Your task to perform on an android device: toggle location history Image 0: 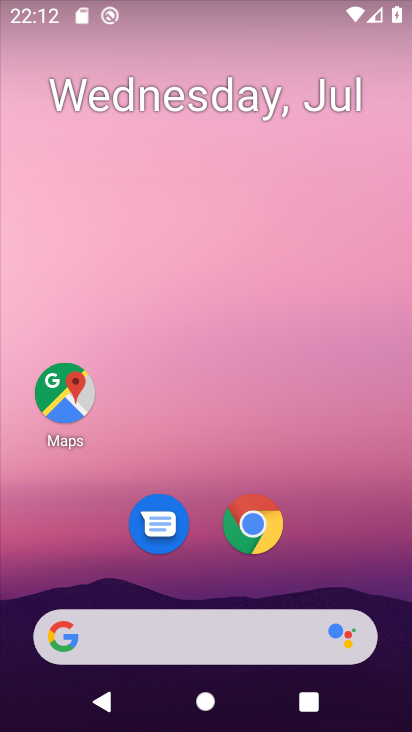
Step 0: drag from (326, 528) to (328, 1)
Your task to perform on an android device: toggle location history Image 1: 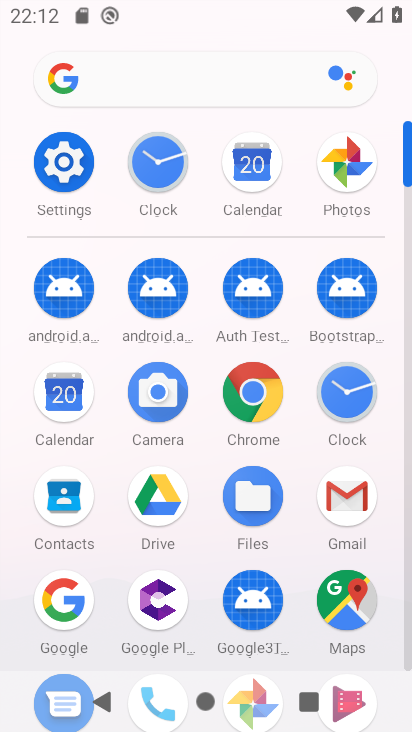
Step 1: drag from (202, 541) to (230, 346)
Your task to perform on an android device: toggle location history Image 2: 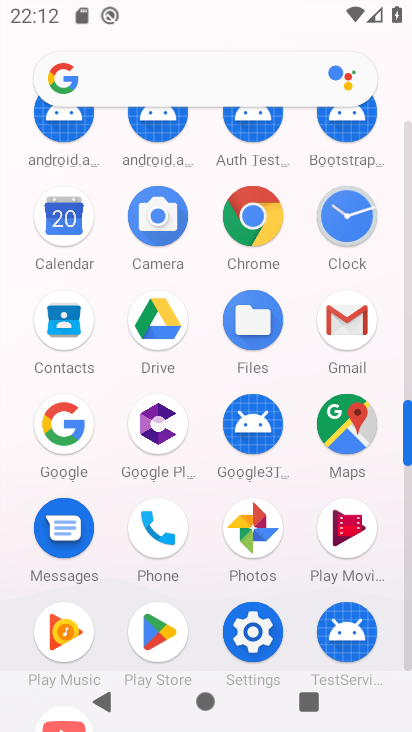
Step 2: drag from (204, 164) to (228, 457)
Your task to perform on an android device: toggle location history Image 3: 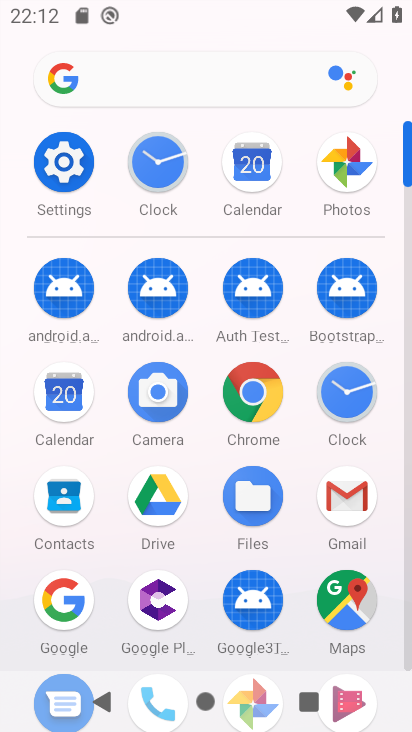
Step 3: click (69, 155)
Your task to perform on an android device: toggle location history Image 4: 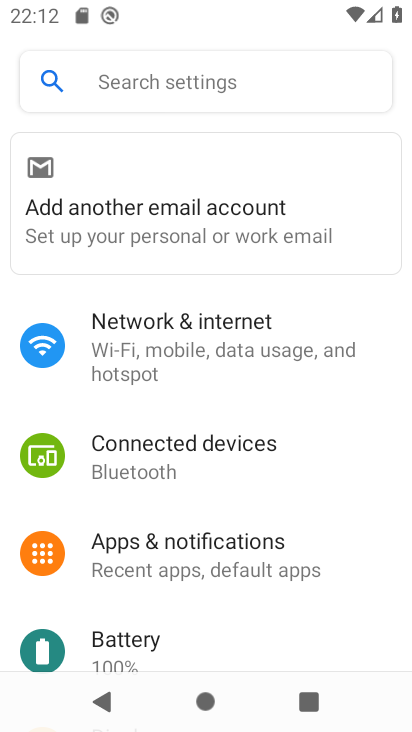
Step 4: drag from (217, 622) to (289, 25)
Your task to perform on an android device: toggle location history Image 5: 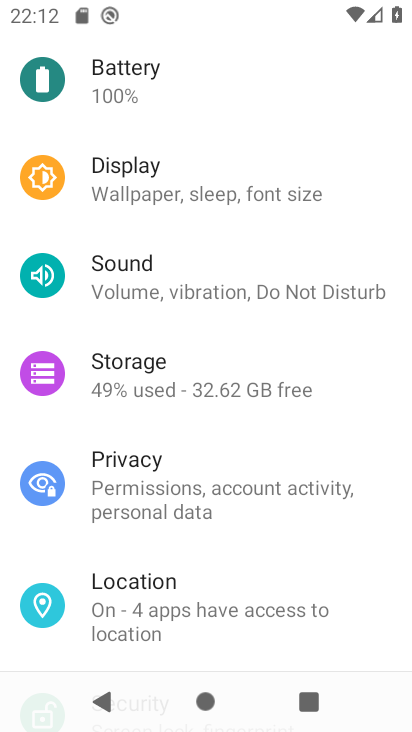
Step 5: click (222, 610)
Your task to perform on an android device: toggle location history Image 6: 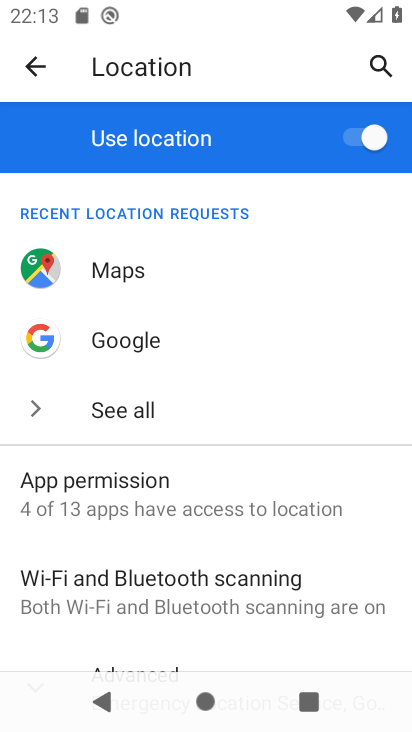
Step 6: drag from (258, 487) to (281, 194)
Your task to perform on an android device: toggle location history Image 7: 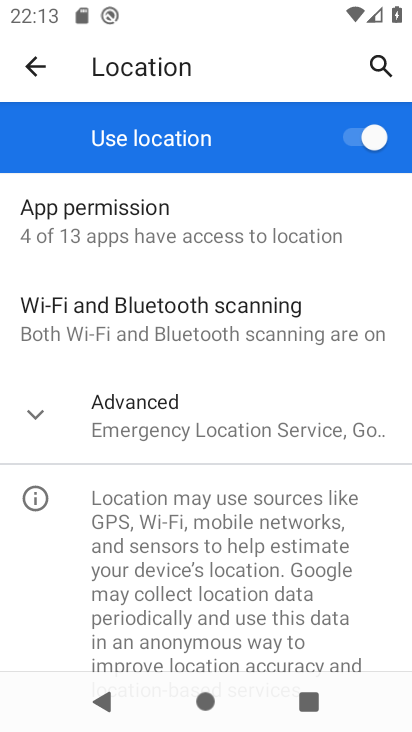
Step 7: click (39, 409)
Your task to perform on an android device: toggle location history Image 8: 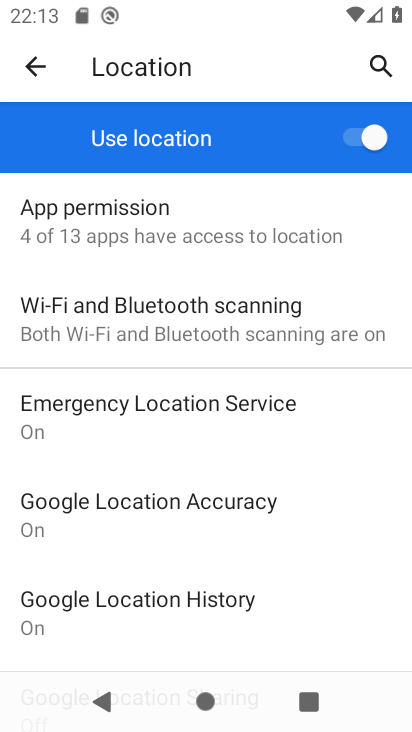
Step 8: click (183, 603)
Your task to perform on an android device: toggle location history Image 9: 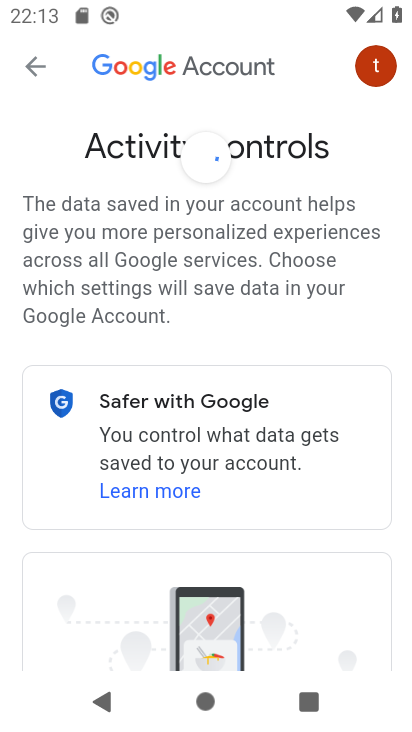
Step 9: drag from (262, 502) to (279, 132)
Your task to perform on an android device: toggle location history Image 10: 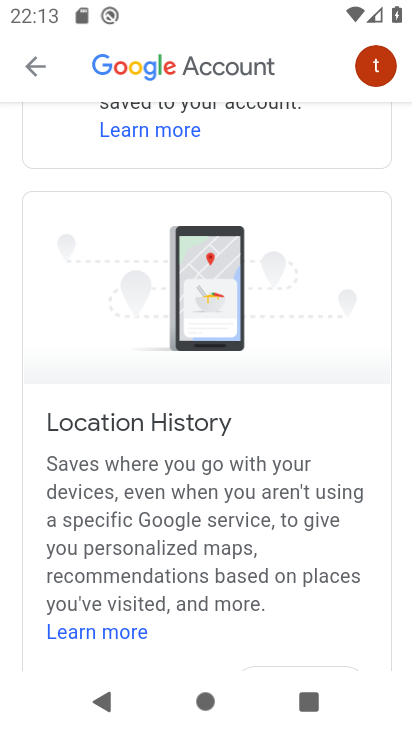
Step 10: drag from (252, 487) to (249, 125)
Your task to perform on an android device: toggle location history Image 11: 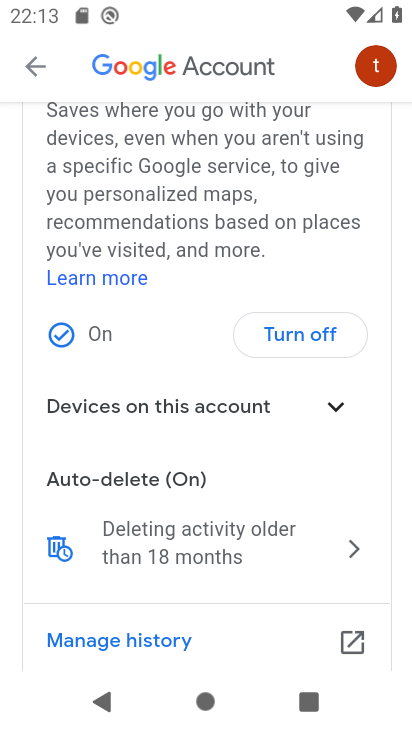
Step 11: click (301, 328)
Your task to perform on an android device: toggle location history Image 12: 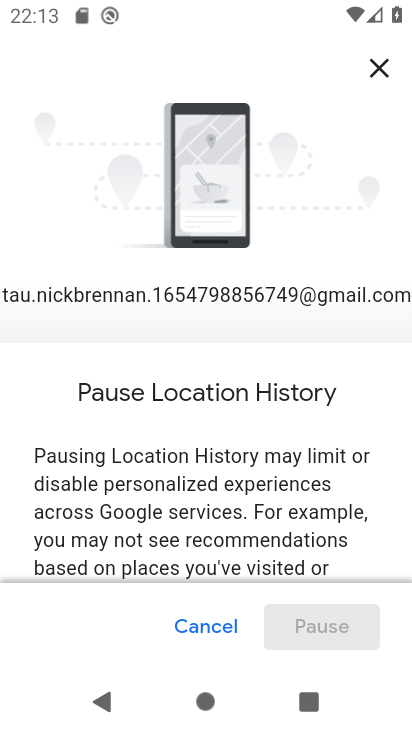
Step 12: drag from (251, 542) to (280, 1)
Your task to perform on an android device: toggle location history Image 13: 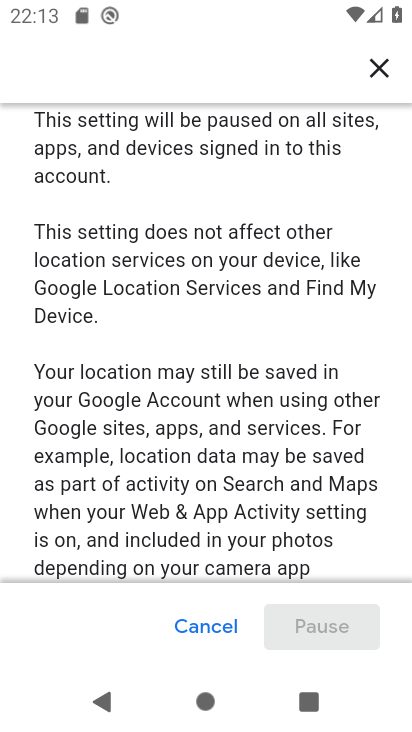
Step 13: drag from (245, 517) to (266, 17)
Your task to perform on an android device: toggle location history Image 14: 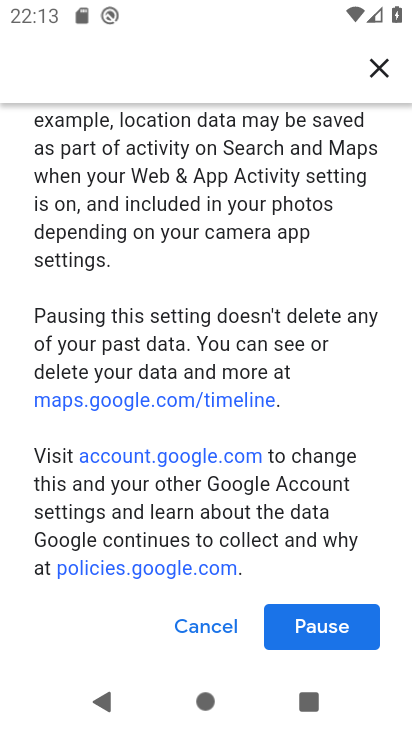
Step 14: click (338, 621)
Your task to perform on an android device: toggle location history Image 15: 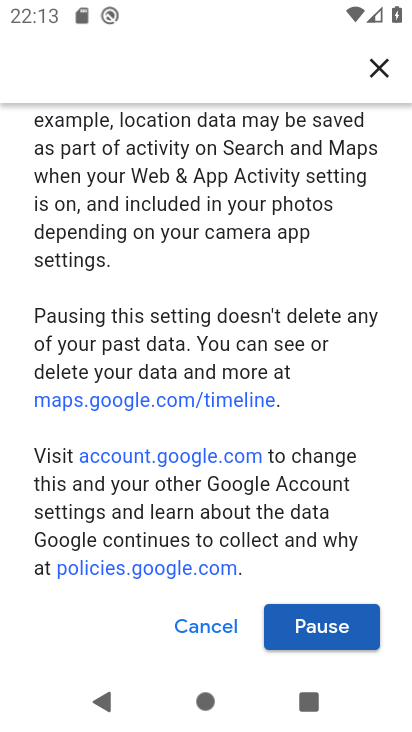
Step 15: click (338, 629)
Your task to perform on an android device: toggle location history Image 16: 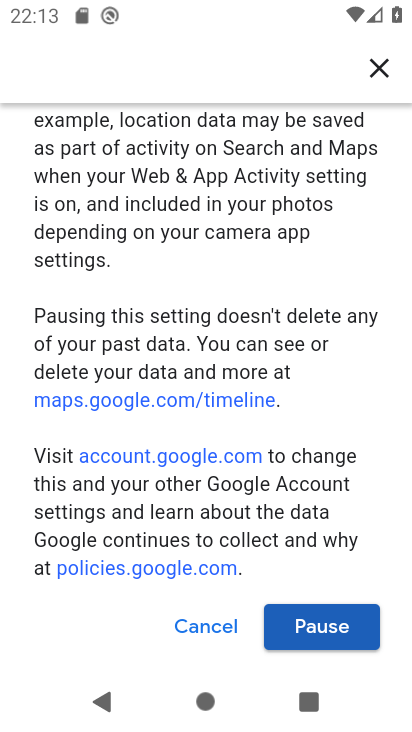
Step 16: click (338, 626)
Your task to perform on an android device: toggle location history Image 17: 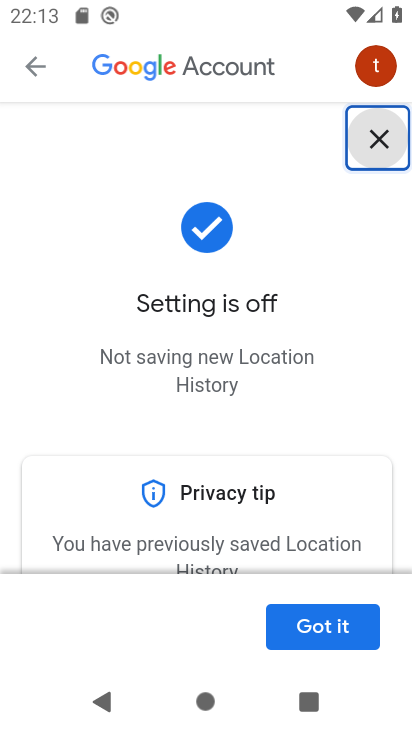
Step 17: click (338, 629)
Your task to perform on an android device: toggle location history Image 18: 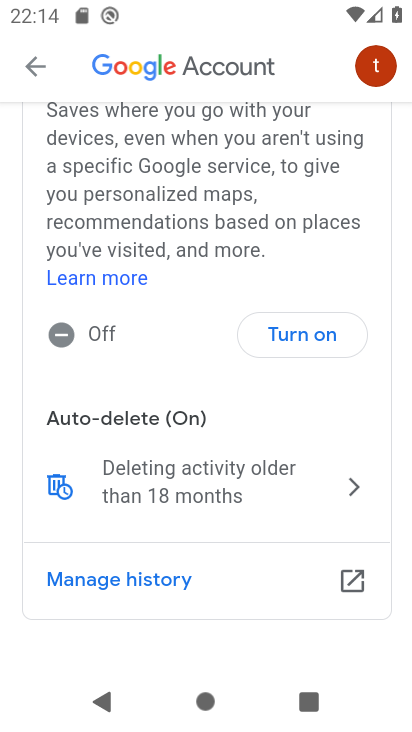
Step 18: task complete